Your task to perform on an android device: Go to Wikipedia Image 0: 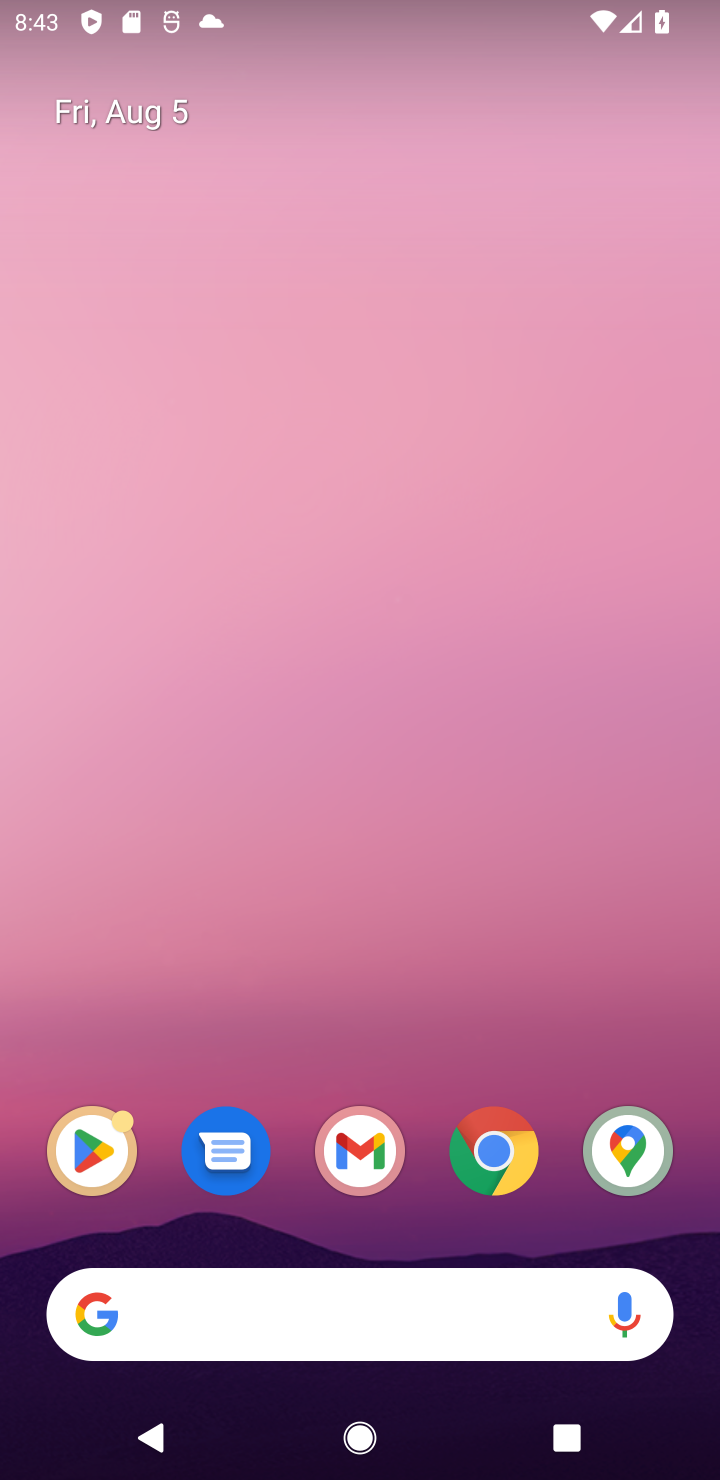
Step 0: click (484, 1192)
Your task to perform on an android device: Go to Wikipedia Image 1: 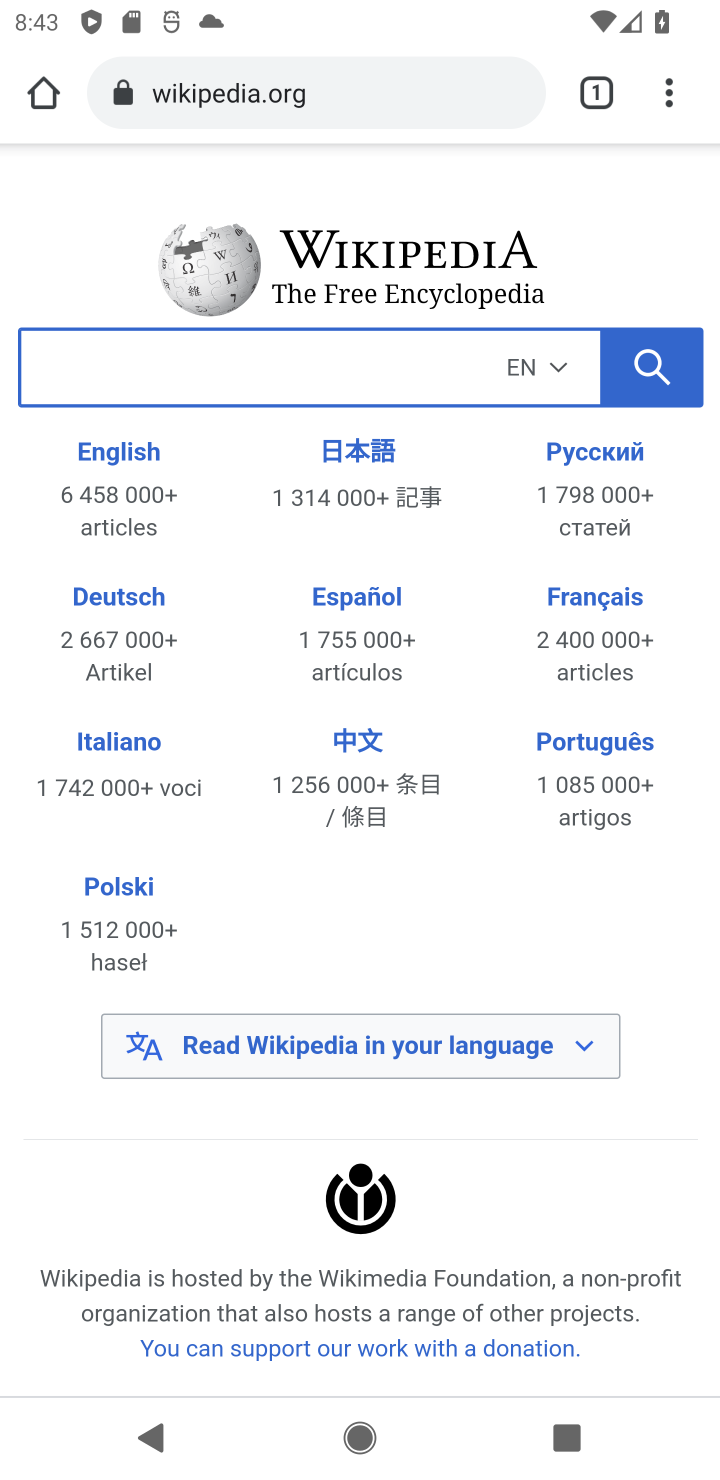
Step 1: task complete